Your task to perform on an android device: open a bookmark in the chrome app Image 0: 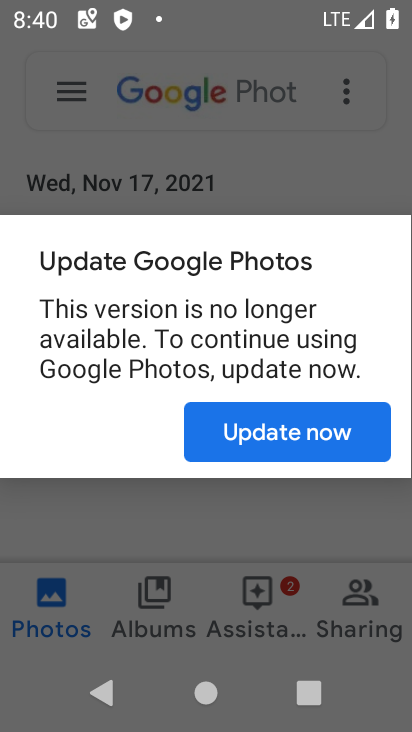
Step 0: press home button
Your task to perform on an android device: open a bookmark in the chrome app Image 1: 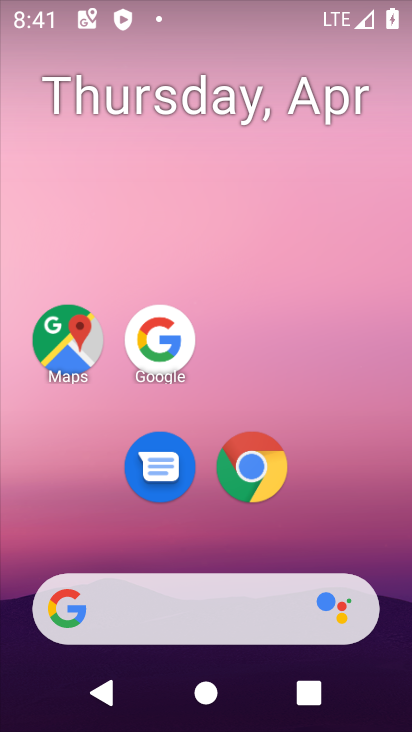
Step 1: click (259, 510)
Your task to perform on an android device: open a bookmark in the chrome app Image 2: 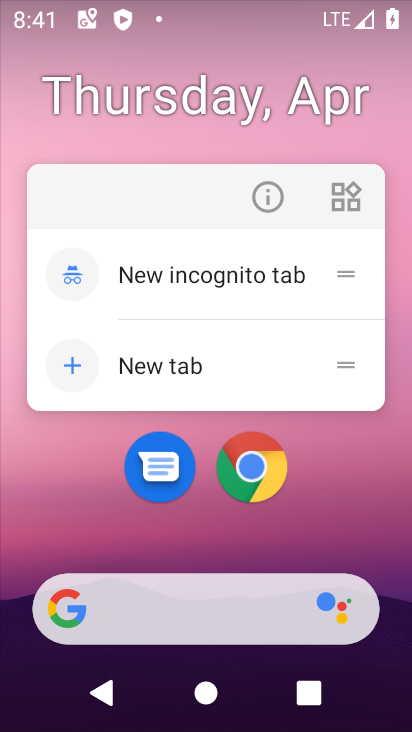
Step 2: click (259, 489)
Your task to perform on an android device: open a bookmark in the chrome app Image 3: 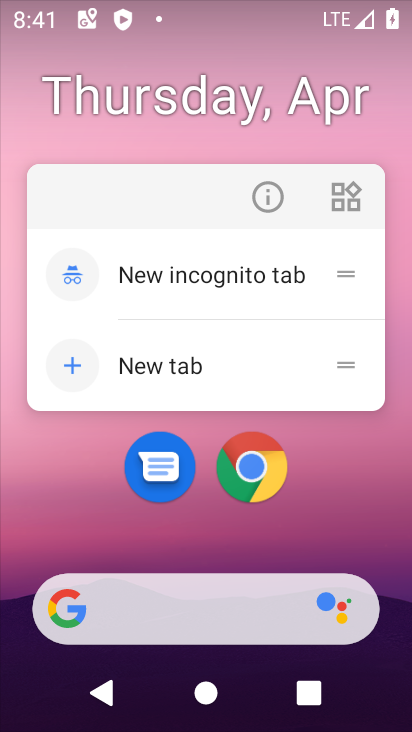
Step 3: click (249, 481)
Your task to perform on an android device: open a bookmark in the chrome app Image 4: 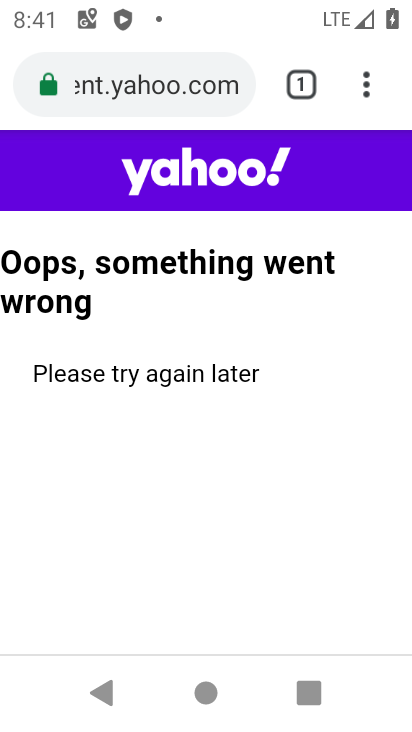
Step 4: drag from (365, 91) to (174, 424)
Your task to perform on an android device: open a bookmark in the chrome app Image 5: 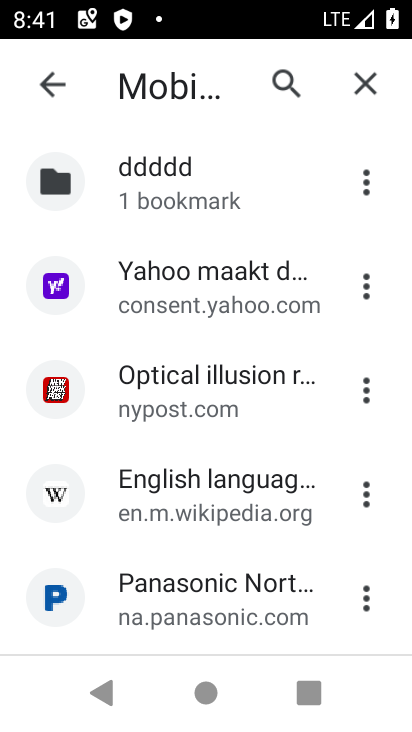
Step 5: click (188, 601)
Your task to perform on an android device: open a bookmark in the chrome app Image 6: 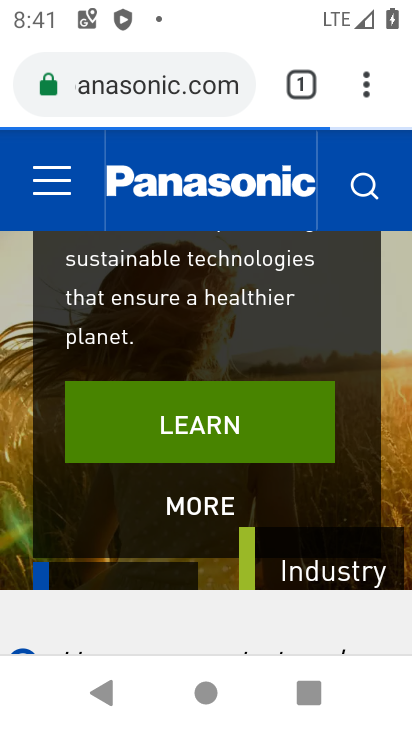
Step 6: task complete